Your task to perform on an android device: Open Google Maps Image 0: 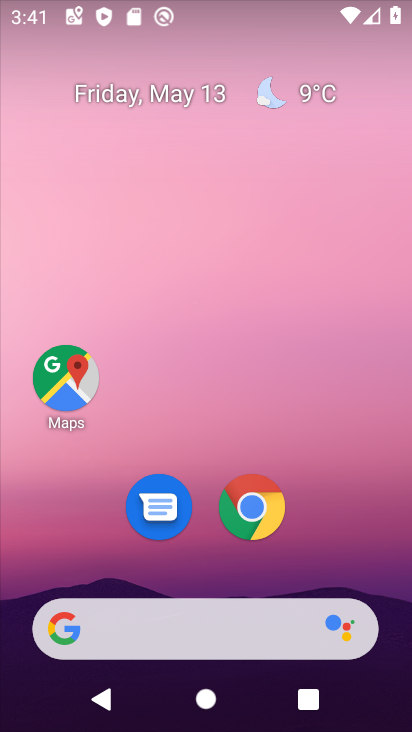
Step 0: drag from (369, 497) to (378, 24)
Your task to perform on an android device: Open Google Maps Image 1: 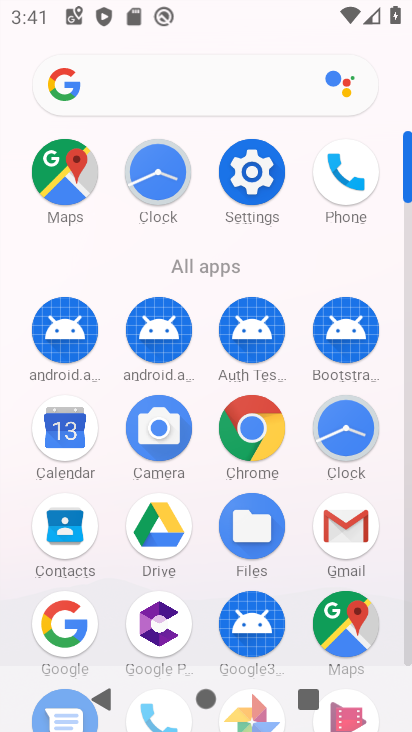
Step 1: click (66, 174)
Your task to perform on an android device: Open Google Maps Image 2: 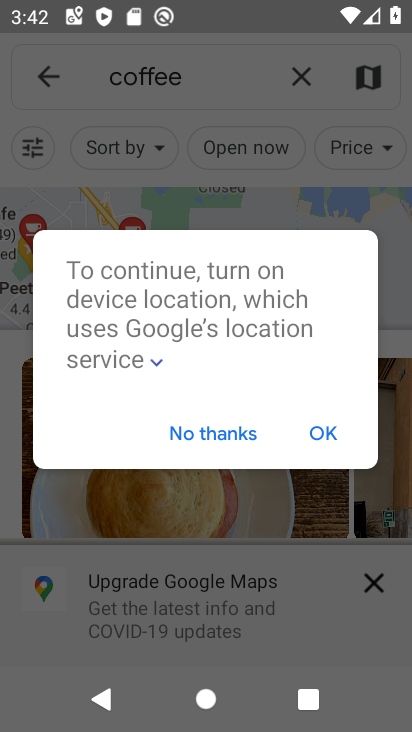
Step 2: click (225, 432)
Your task to perform on an android device: Open Google Maps Image 3: 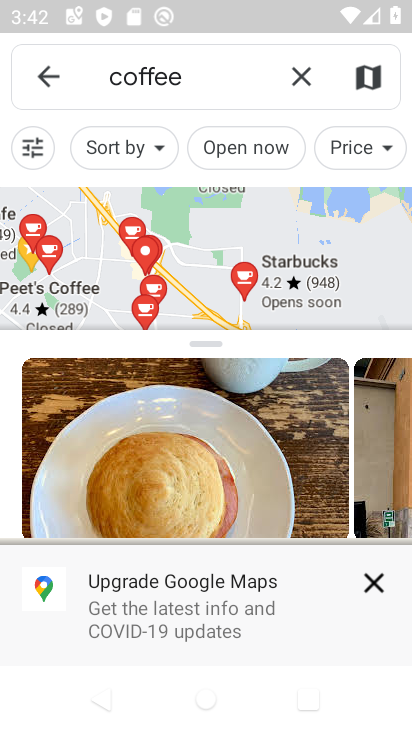
Step 3: task complete